Your task to perform on an android device: uninstall "Nova Launcher" Image 0: 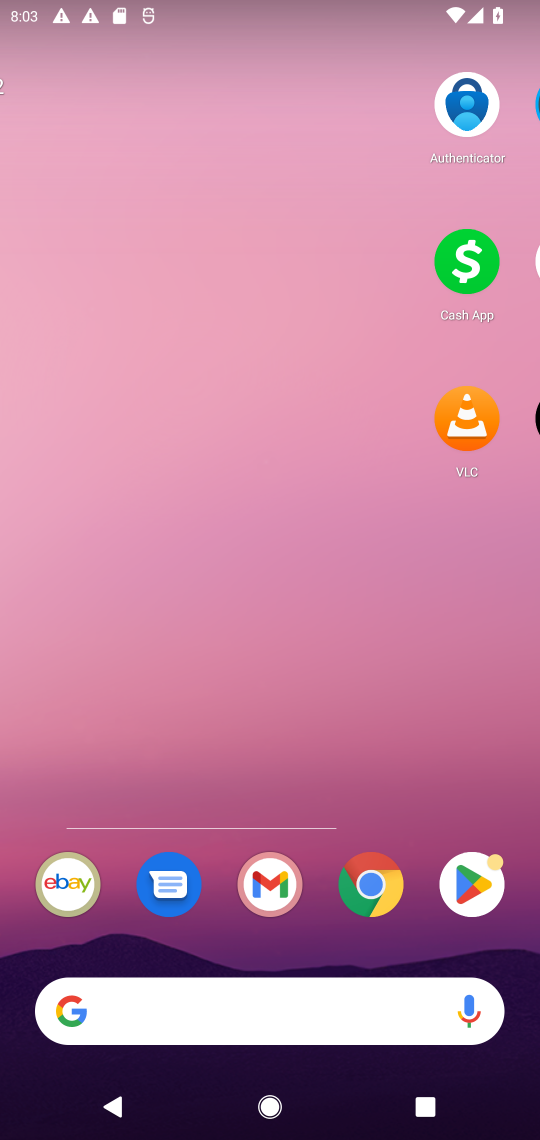
Step 0: press home button
Your task to perform on an android device: uninstall "Nova Launcher" Image 1: 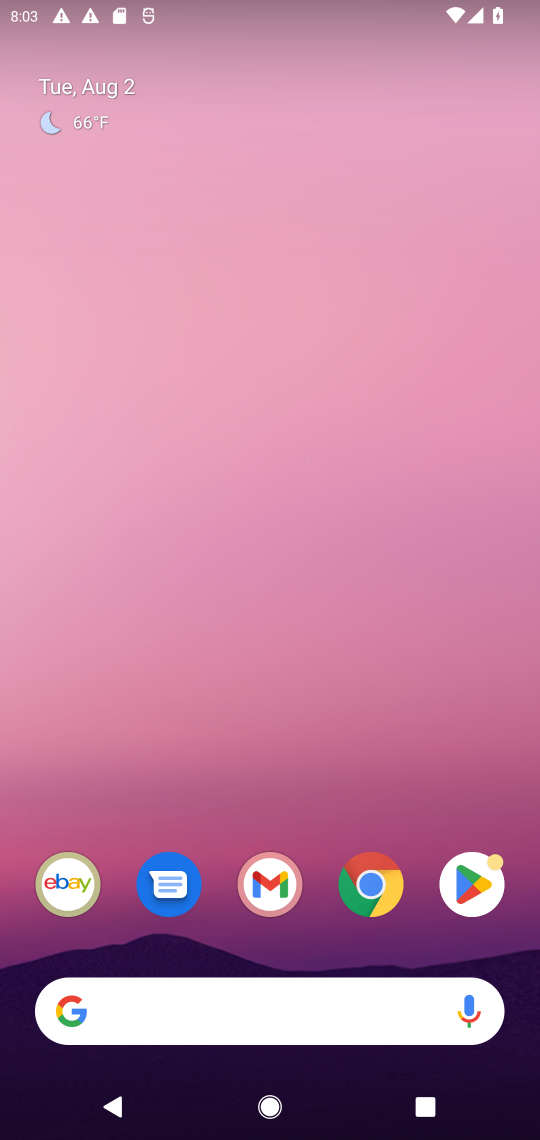
Step 1: click (478, 876)
Your task to perform on an android device: uninstall "Nova Launcher" Image 2: 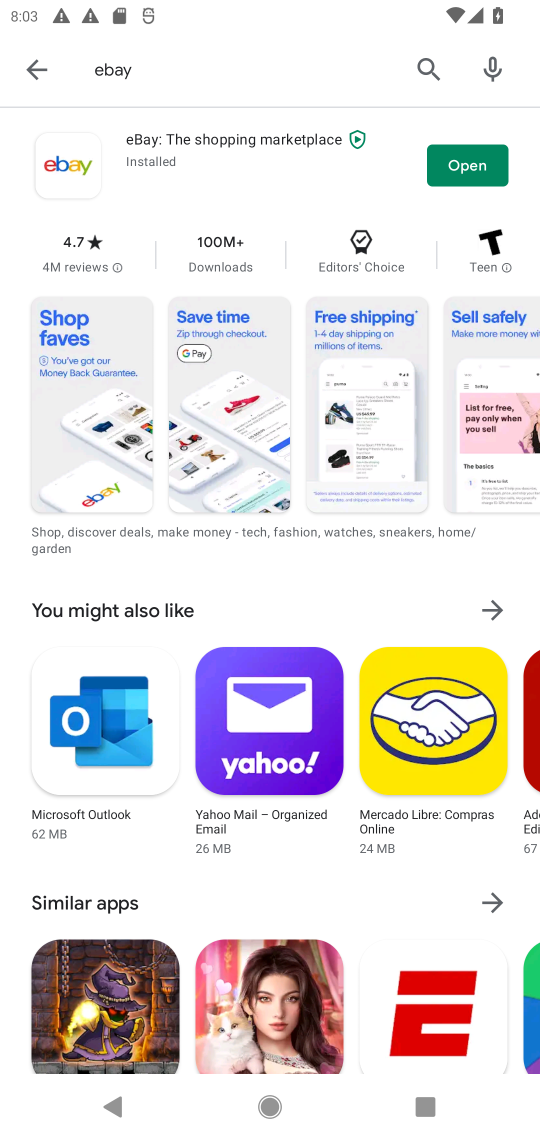
Step 2: click (425, 54)
Your task to perform on an android device: uninstall "Nova Launcher" Image 3: 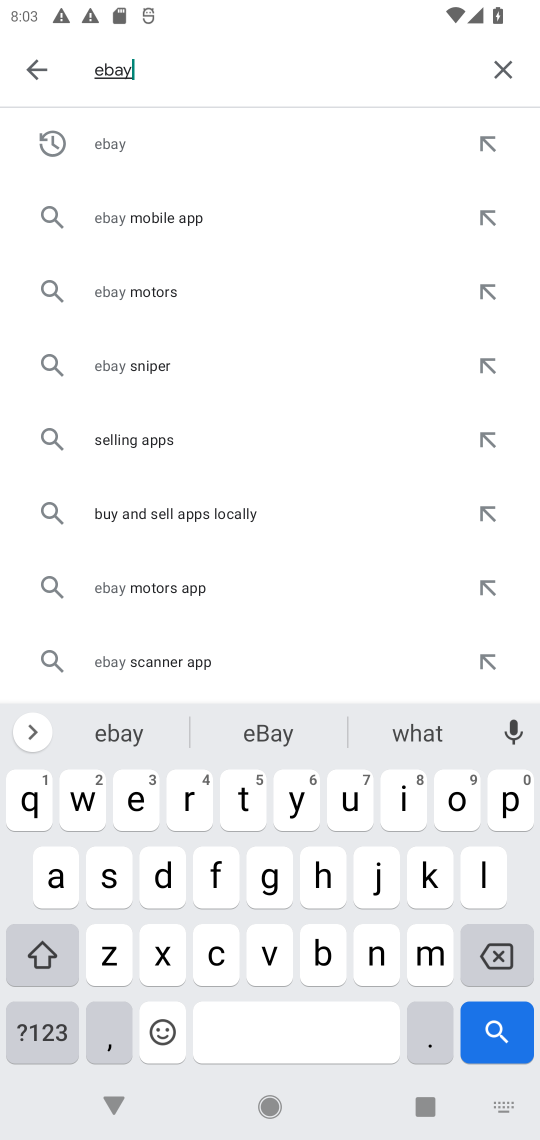
Step 3: click (504, 72)
Your task to perform on an android device: uninstall "Nova Launcher" Image 4: 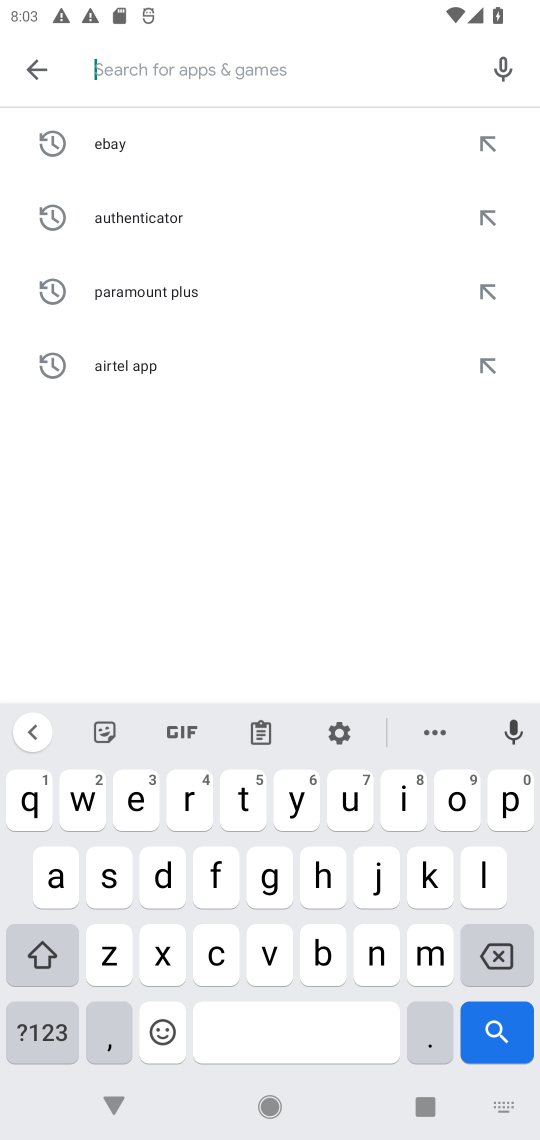
Step 4: click (377, 960)
Your task to perform on an android device: uninstall "Nova Launcher" Image 5: 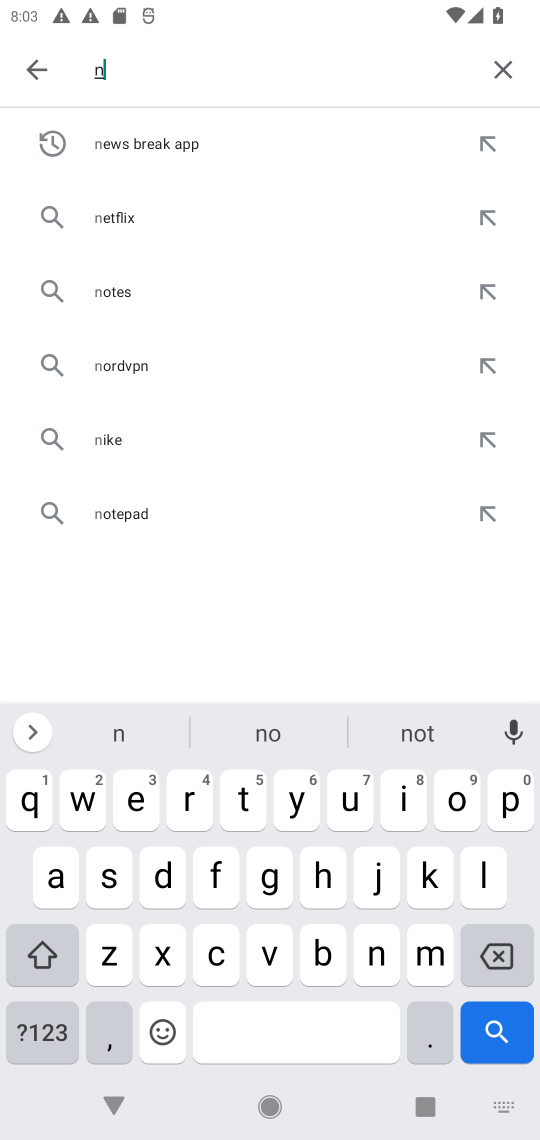
Step 5: click (454, 798)
Your task to perform on an android device: uninstall "Nova Launcher" Image 6: 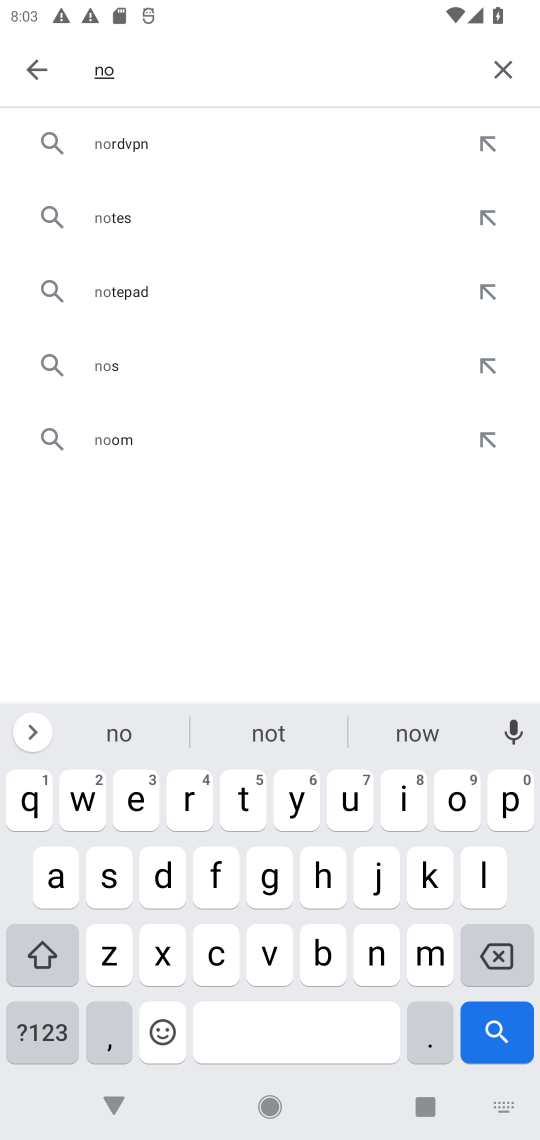
Step 6: click (263, 951)
Your task to perform on an android device: uninstall "Nova Launcher" Image 7: 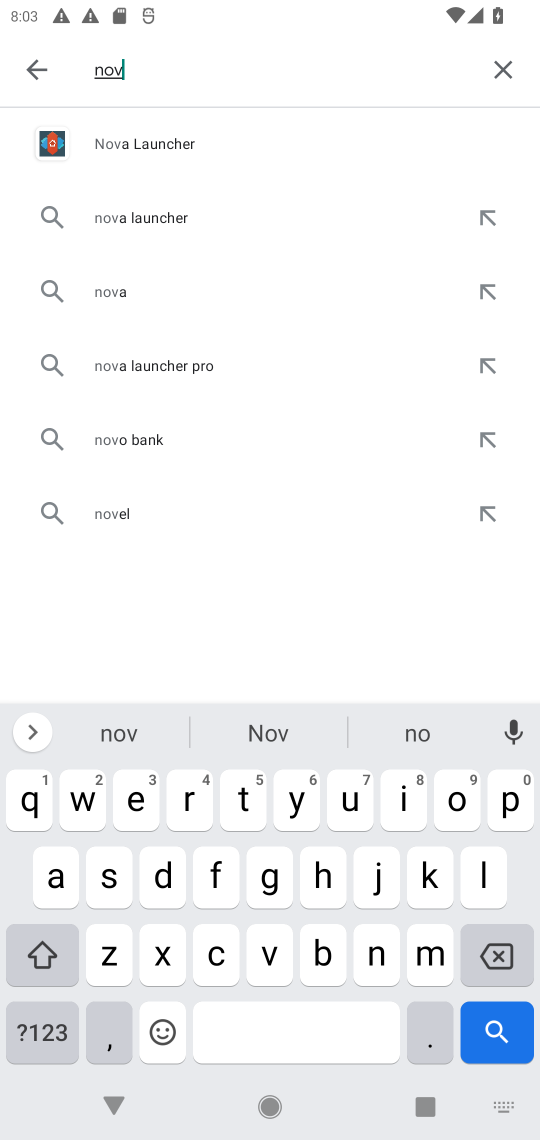
Step 7: click (44, 866)
Your task to perform on an android device: uninstall "Nova Launcher" Image 8: 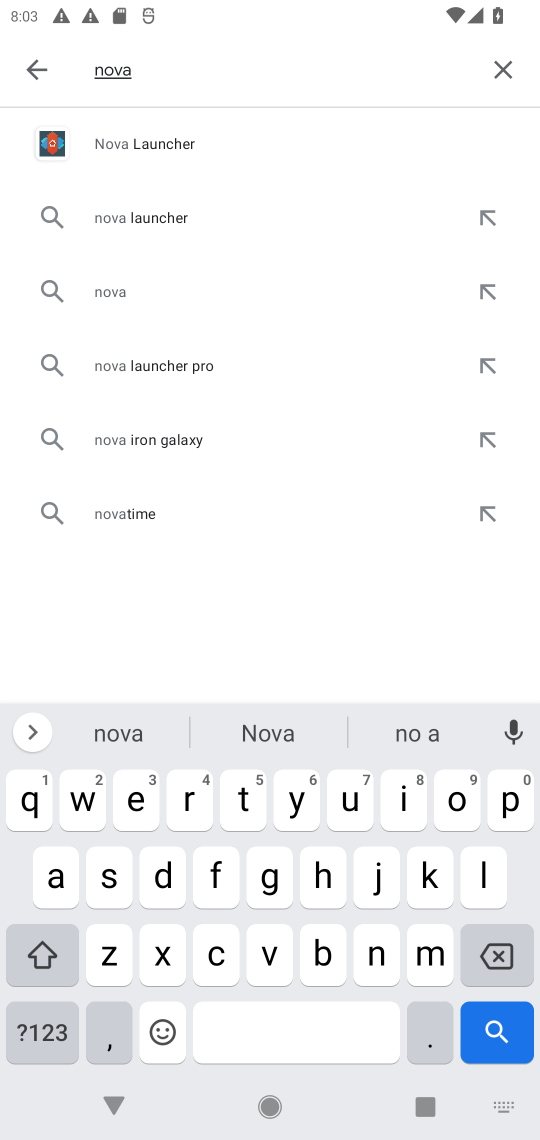
Step 8: click (142, 132)
Your task to perform on an android device: uninstall "Nova Launcher" Image 9: 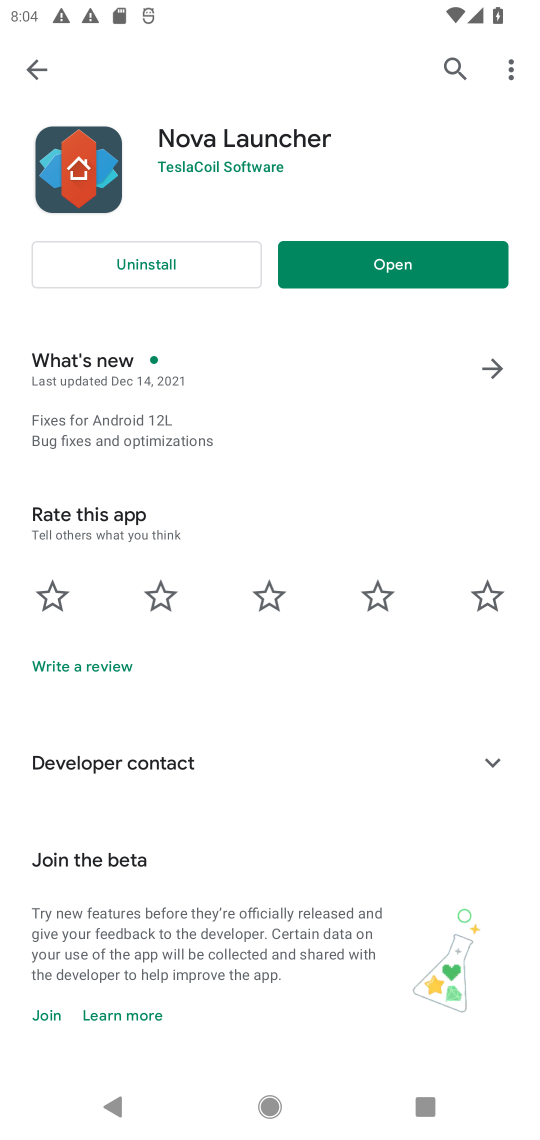
Step 9: click (151, 261)
Your task to perform on an android device: uninstall "Nova Launcher" Image 10: 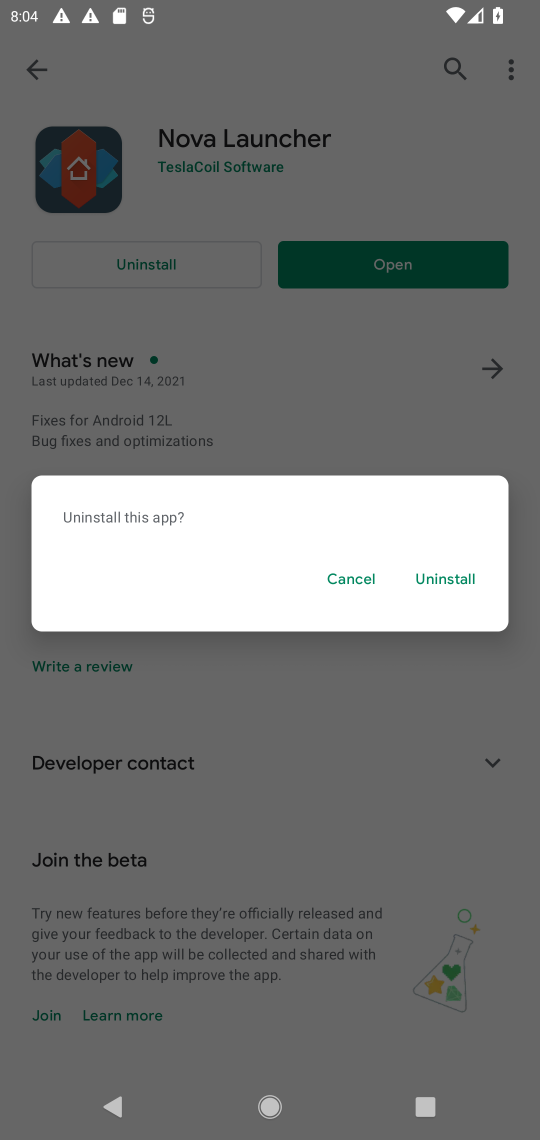
Step 10: click (456, 573)
Your task to perform on an android device: uninstall "Nova Launcher" Image 11: 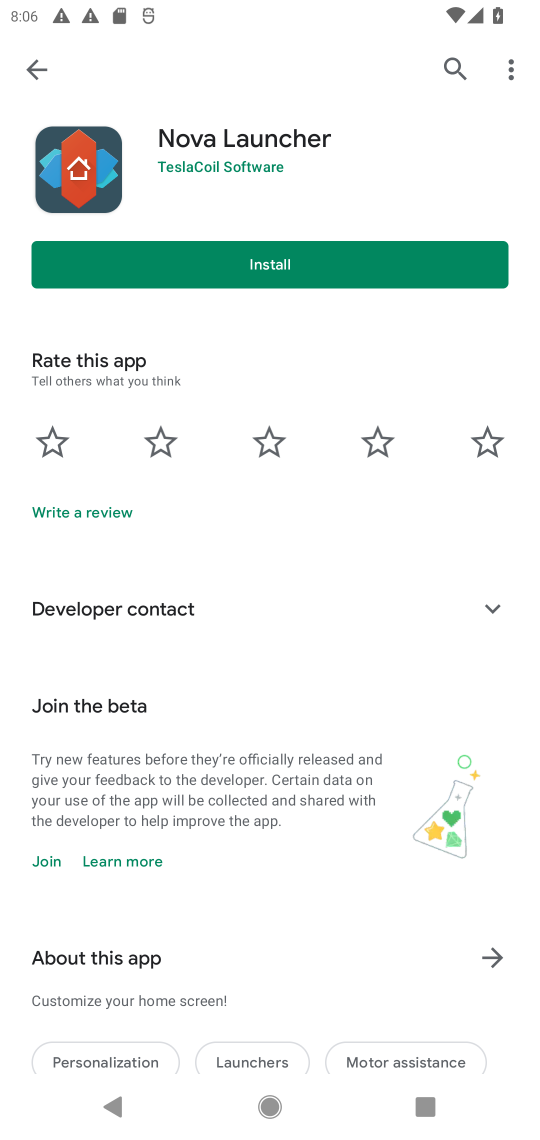
Step 11: task complete